Your task to perform on an android device: Go to Android settings Image 0: 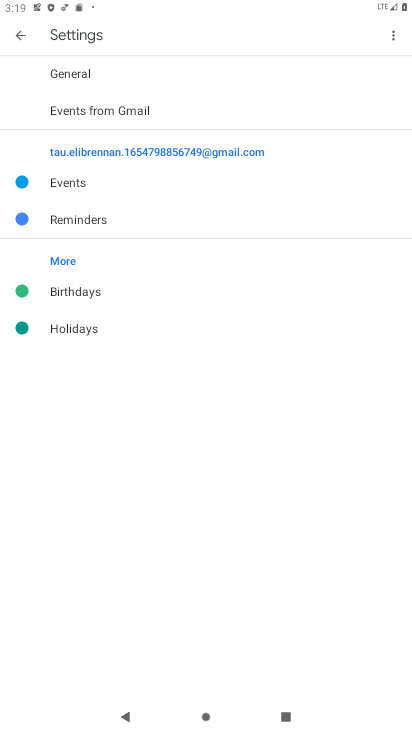
Step 0: press home button
Your task to perform on an android device: Go to Android settings Image 1: 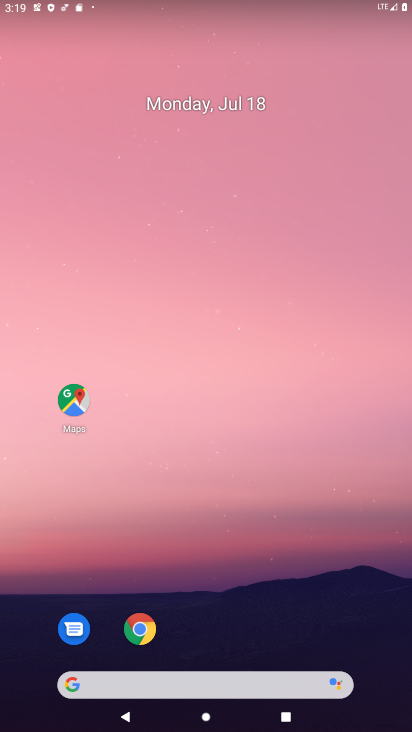
Step 1: drag from (256, 633) to (284, 40)
Your task to perform on an android device: Go to Android settings Image 2: 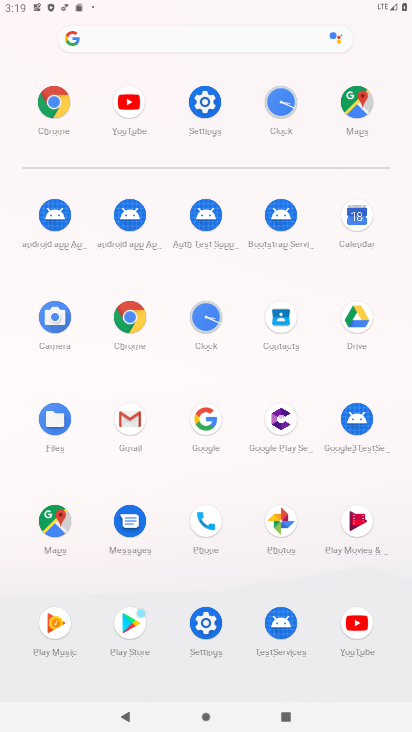
Step 2: click (201, 632)
Your task to perform on an android device: Go to Android settings Image 3: 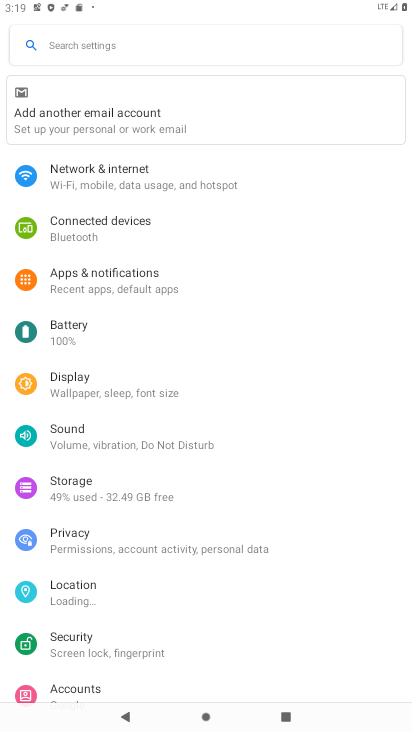
Step 3: drag from (126, 569) to (195, 77)
Your task to perform on an android device: Go to Android settings Image 4: 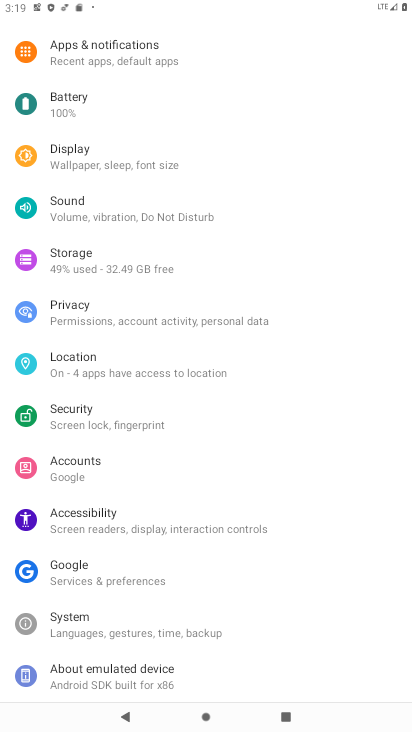
Step 4: click (125, 676)
Your task to perform on an android device: Go to Android settings Image 5: 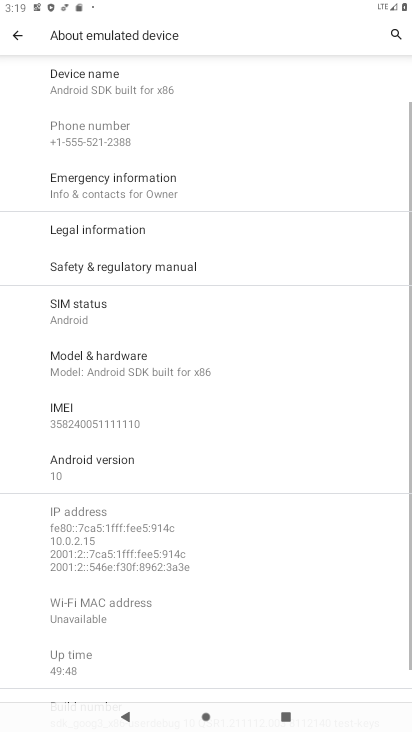
Step 5: drag from (144, 447) to (147, 378)
Your task to perform on an android device: Go to Android settings Image 6: 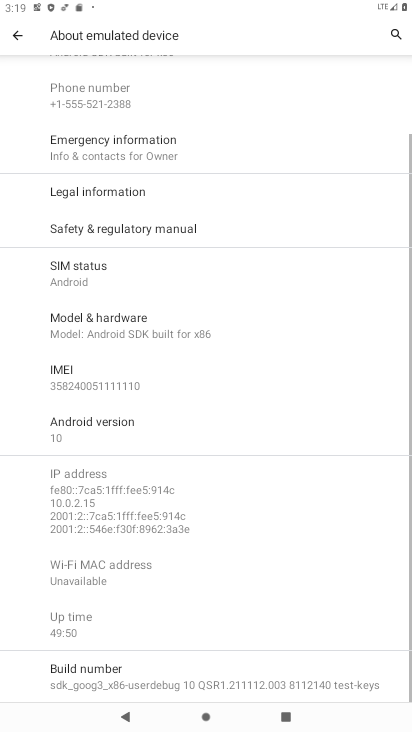
Step 6: click (104, 443)
Your task to perform on an android device: Go to Android settings Image 7: 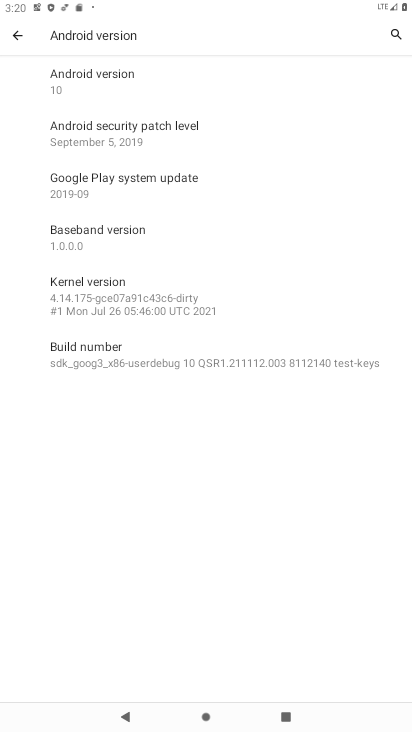
Step 7: task complete